Your task to perform on an android device: Search for "sony triple a" on amazon.com, select the first entry, and add it to the cart. Image 0: 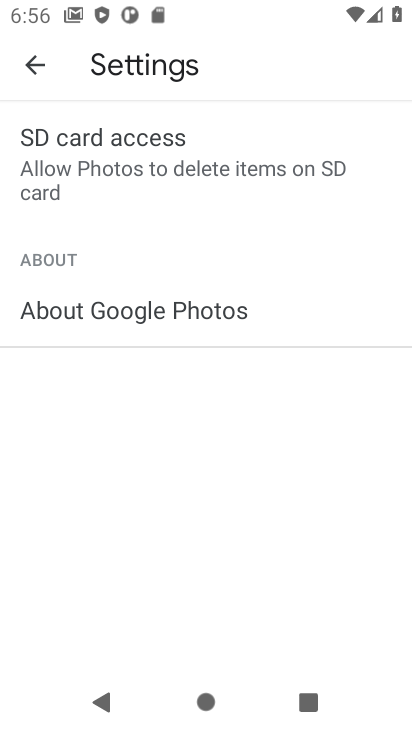
Step 0: press home button
Your task to perform on an android device: Search for "sony triple a" on amazon.com, select the first entry, and add it to the cart. Image 1: 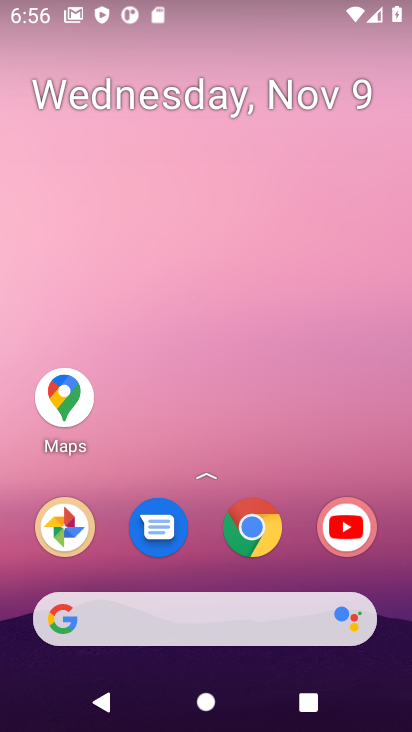
Step 1: click (250, 532)
Your task to perform on an android device: Search for "sony triple a" on amazon.com, select the first entry, and add it to the cart. Image 2: 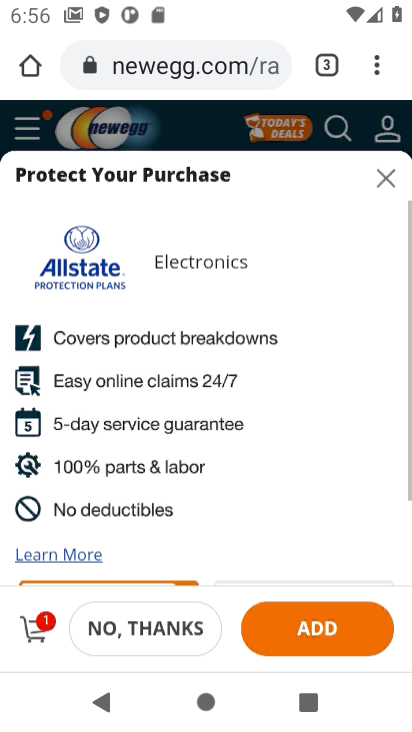
Step 2: click (168, 76)
Your task to perform on an android device: Search for "sony triple a" on amazon.com, select the first entry, and add it to the cart. Image 3: 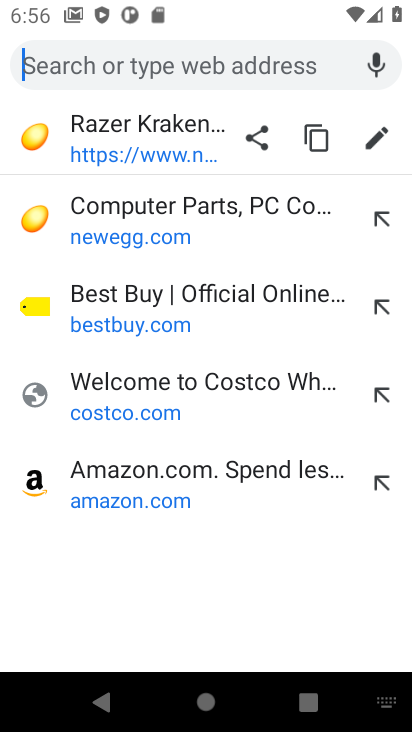
Step 3: click (165, 497)
Your task to perform on an android device: Search for "sony triple a" on amazon.com, select the first entry, and add it to the cart. Image 4: 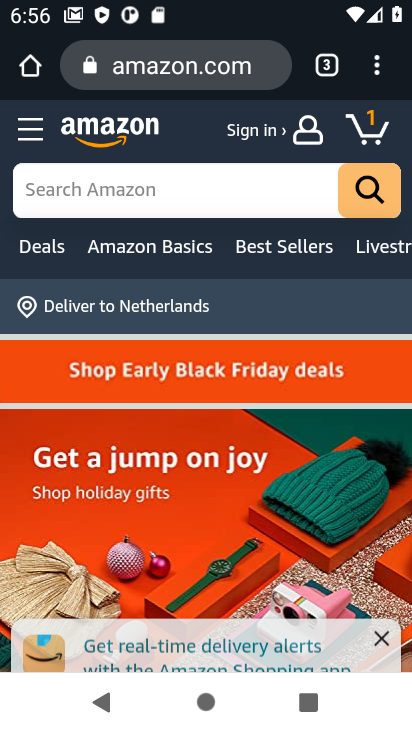
Step 4: click (96, 180)
Your task to perform on an android device: Search for "sony triple a" on amazon.com, select the first entry, and add it to the cart. Image 5: 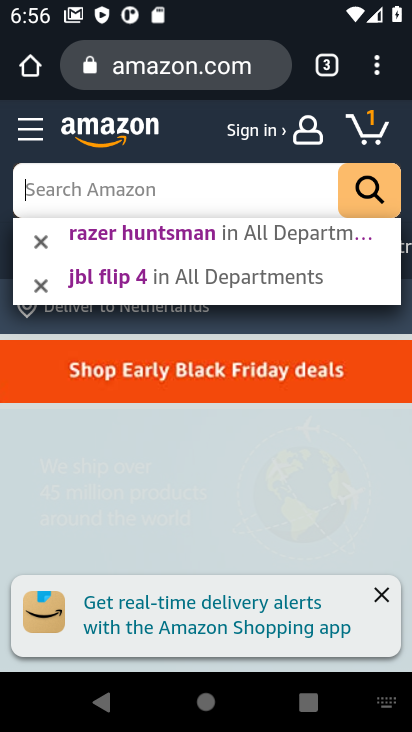
Step 5: type "sony triple a"
Your task to perform on an android device: Search for "sony triple a" on amazon.com, select the first entry, and add it to the cart. Image 6: 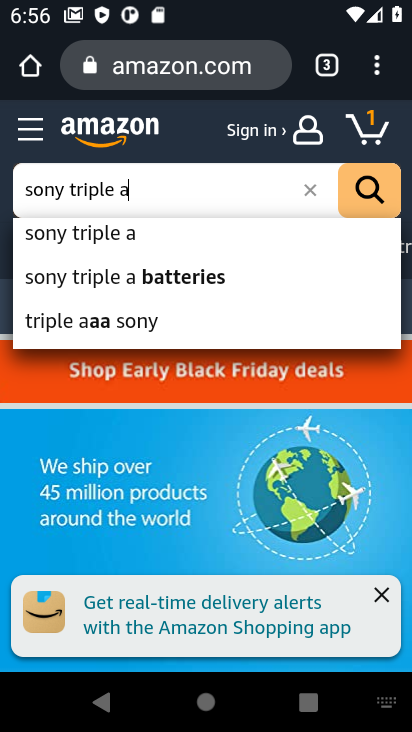
Step 6: click (87, 242)
Your task to perform on an android device: Search for "sony triple a" on amazon.com, select the first entry, and add it to the cart. Image 7: 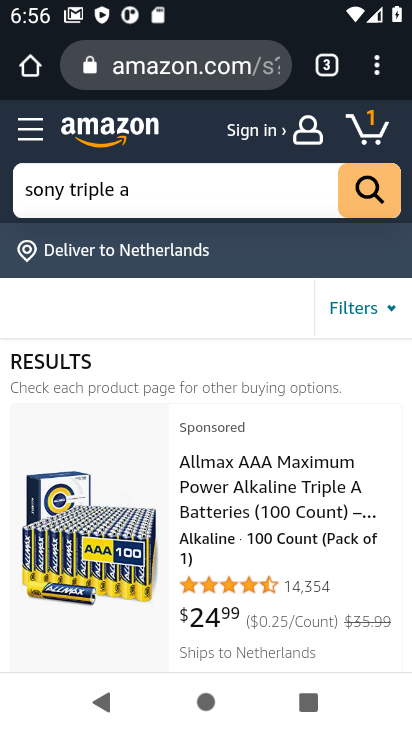
Step 7: task complete